Your task to perform on an android device: all mails in gmail Image 0: 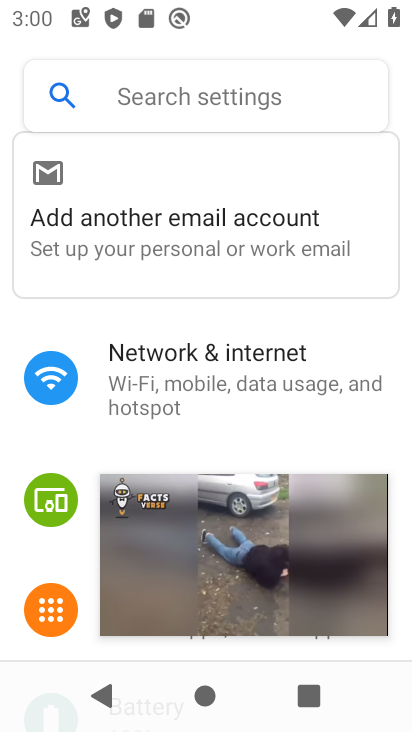
Step 0: click (356, 515)
Your task to perform on an android device: all mails in gmail Image 1: 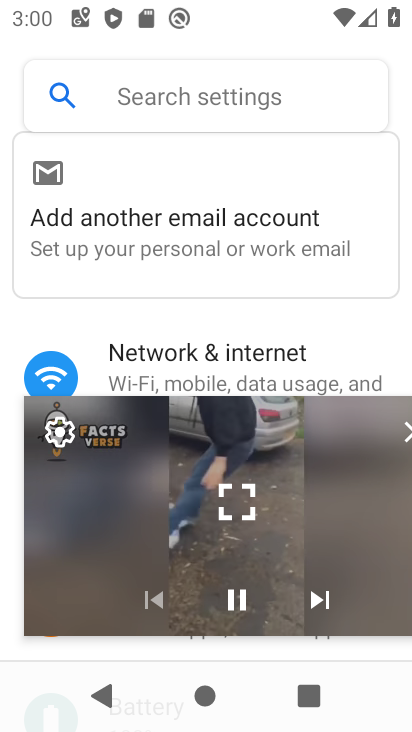
Step 1: click (411, 428)
Your task to perform on an android device: all mails in gmail Image 2: 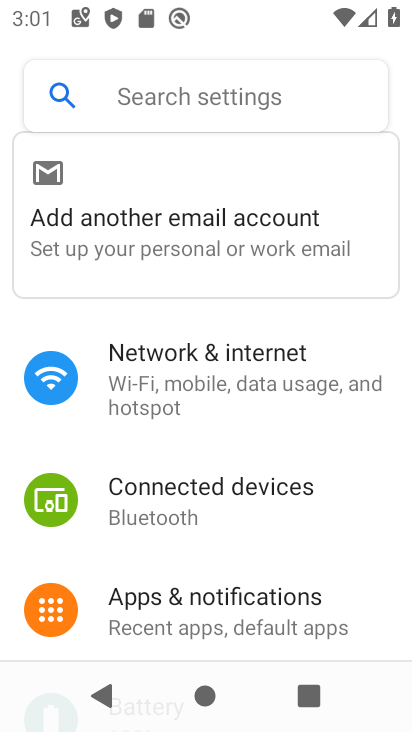
Step 2: press home button
Your task to perform on an android device: all mails in gmail Image 3: 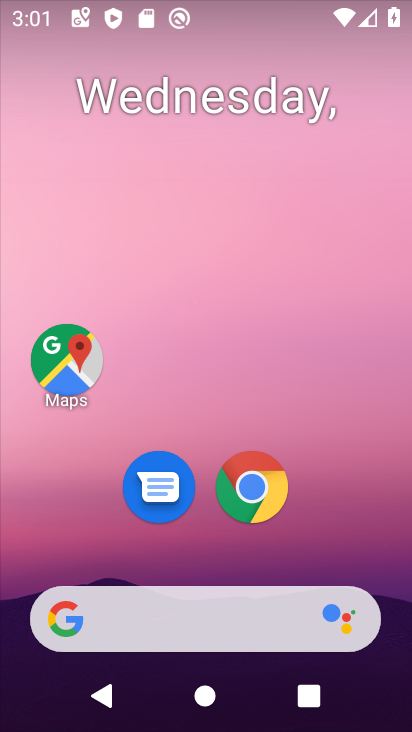
Step 3: drag from (329, 501) to (313, 40)
Your task to perform on an android device: all mails in gmail Image 4: 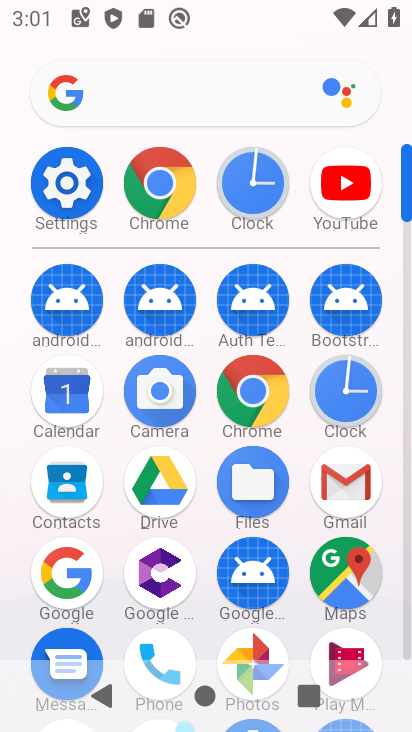
Step 4: click (337, 494)
Your task to perform on an android device: all mails in gmail Image 5: 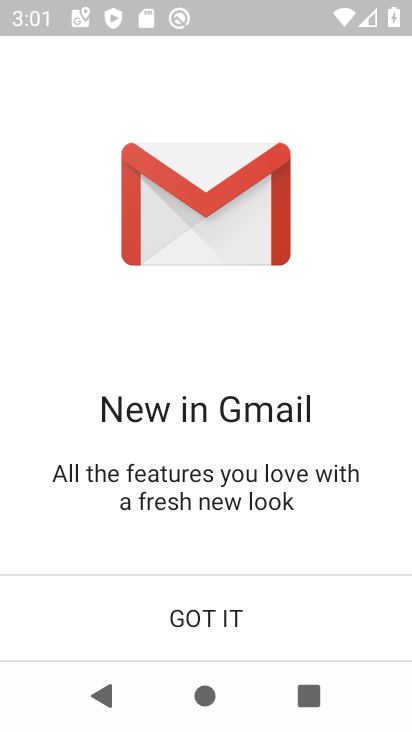
Step 5: click (295, 599)
Your task to perform on an android device: all mails in gmail Image 6: 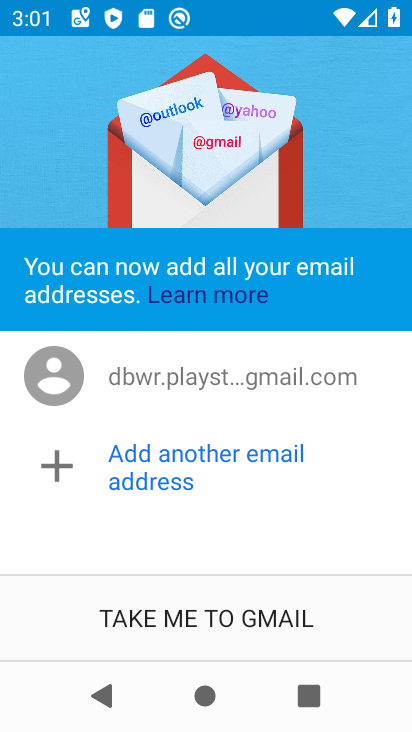
Step 6: click (275, 602)
Your task to perform on an android device: all mails in gmail Image 7: 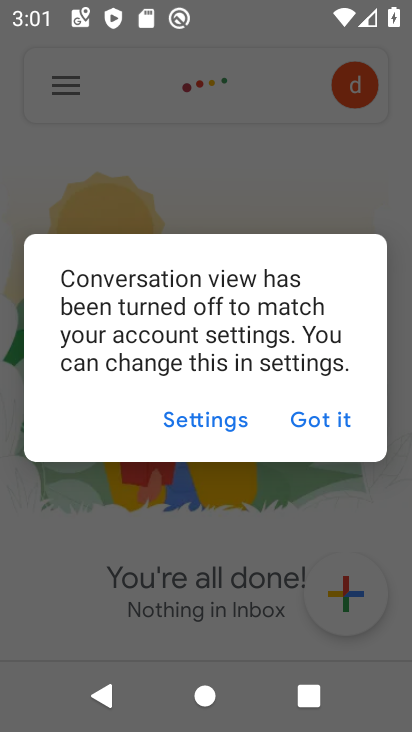
Step 7: click (313, 414)
Your task to perform on an android device: all mails in gmail Image 8: 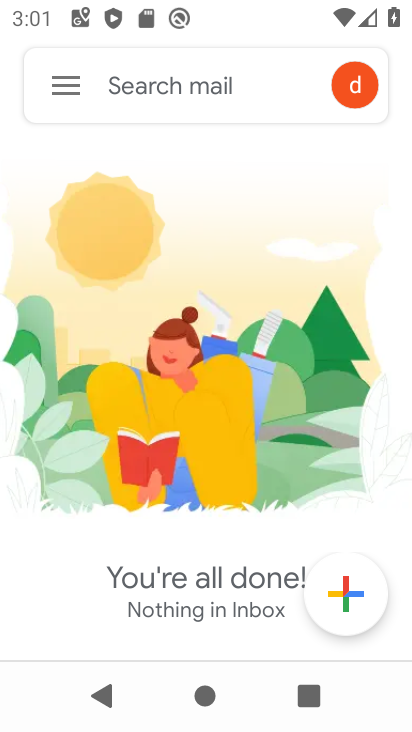
Step 8: click (59, 81)
Your task to perform on an android device: all mails in gmail Image 9: 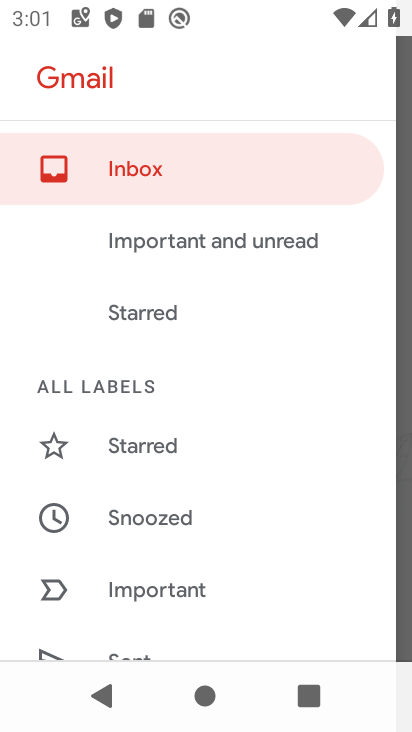
Step 9: drag from (251, 561) to (236, 3)
Your task to perform on an android device: all mails in gmail Image 10: 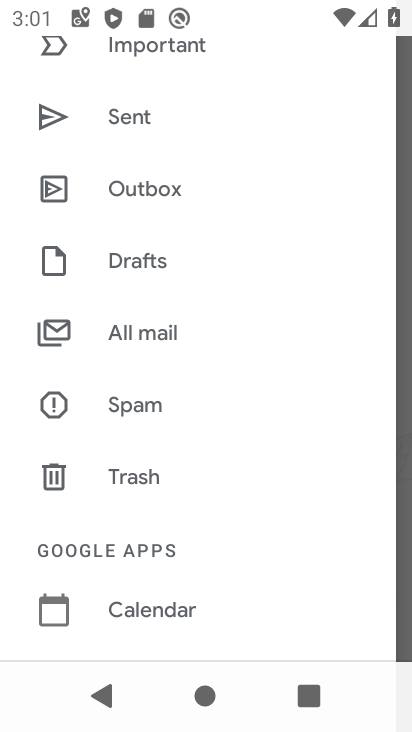
Step 10: click (159, 324)
Your task to perform on an android device: all mails in gmail Image 11: 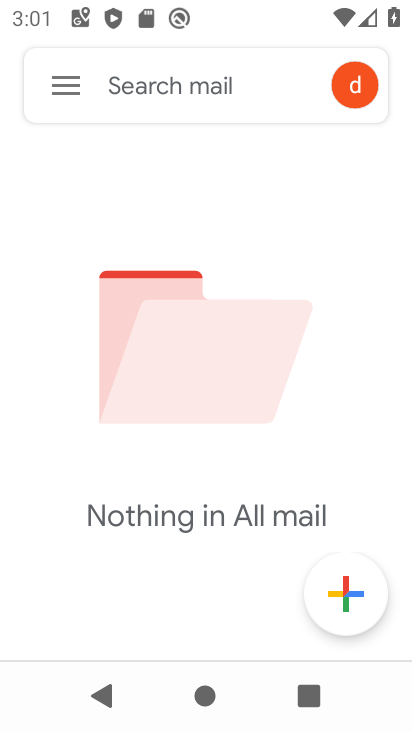
Step 11: task complete